Your task to perform on an android device: Do I have any events this weekend? Image 0: 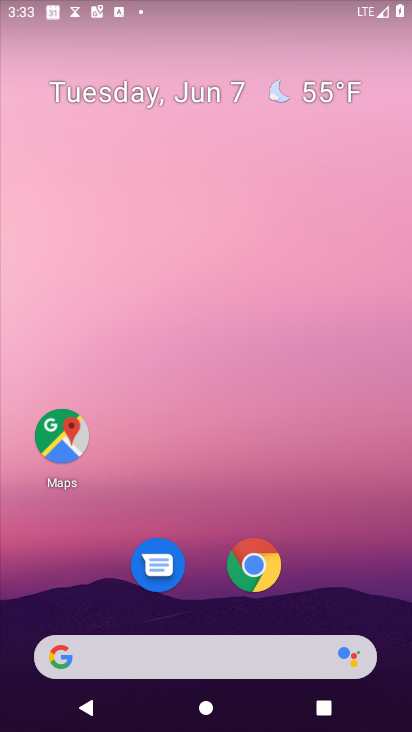
Step 0: drag from (189, 610) to (191, 71)
Your task to perform on an android device: Do I have any events this weekend? Image 1: 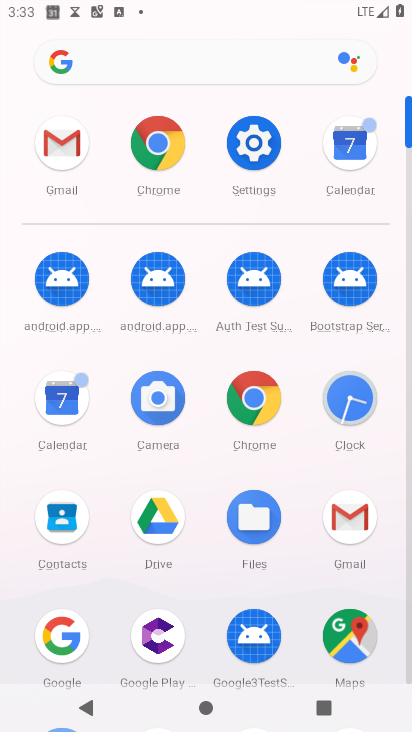
Step 1: click (81, 406)
Your task to perform on an android device: Do I have any events this weekend? Image 2: 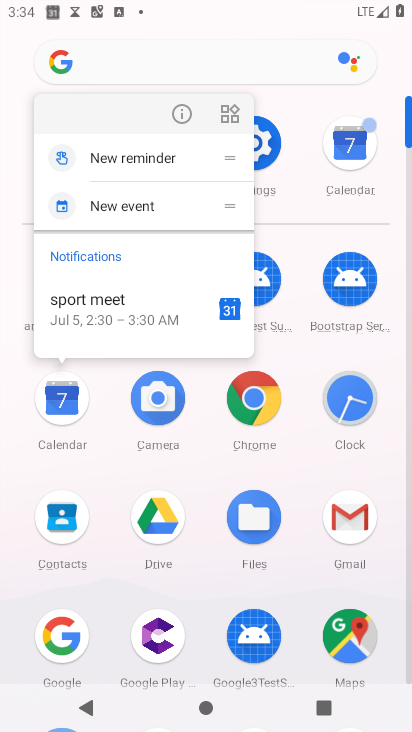
Step 2: click (249, 22)
Your task to perform on an android device: Do I have any events this weekend? Image 3: 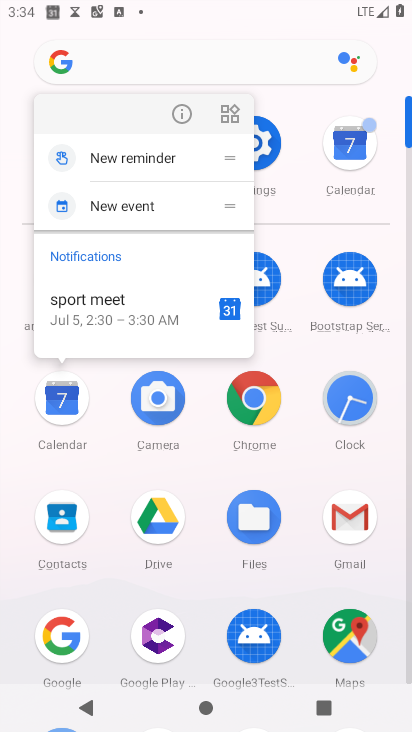
Step 3: drag from (281, 574) to (266, 186)
Your task to perform on an android device: Do I have any events this weekend? Image 4: 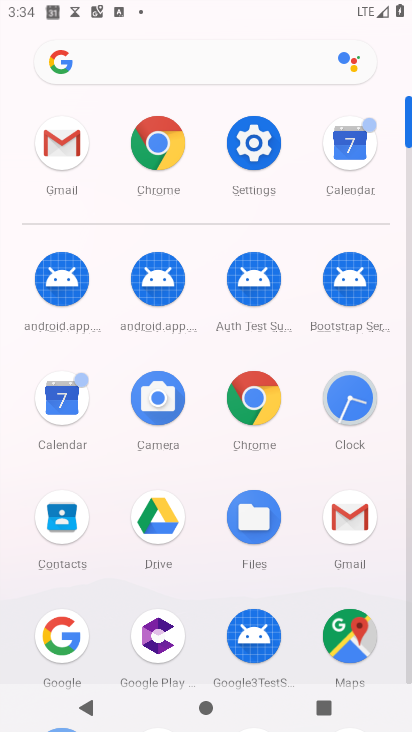
Step 4: click (83, 398)
Your task to perform on an android device: Do I have any events this weekend? Image 5: 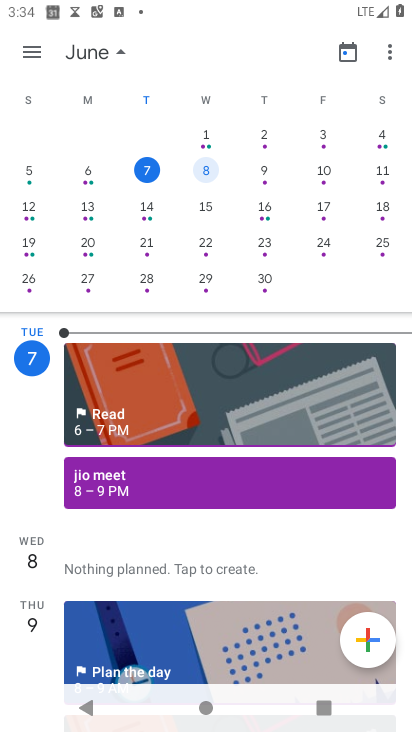
Step 5: drag from (98, 241) to (320, 220)
Your task to perform on an android device: Do I have any events this weekend? Image 6: 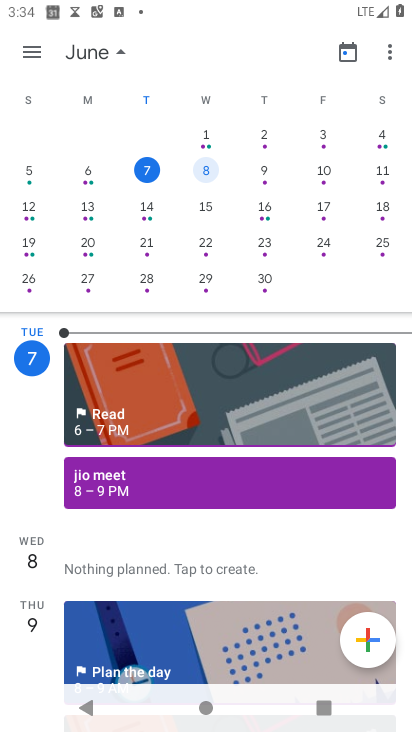
Step 6: click (384, 174)
Your task to perform on an android device: Do I have any events this weekend? Image 7: 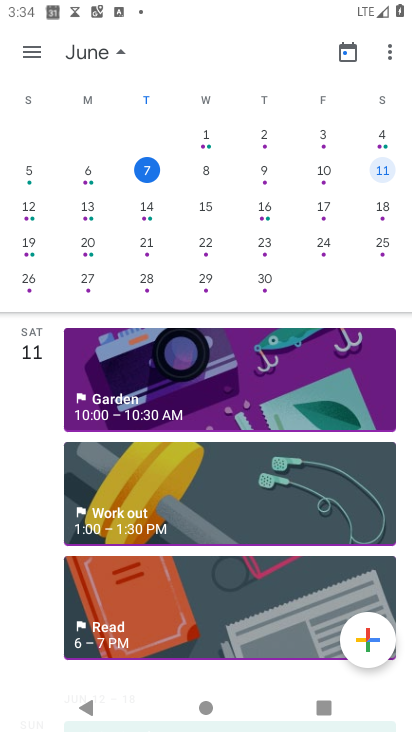
Step 7: task complete